Your task to perform on an android device: Do I have any events tomorrow? Image 0: 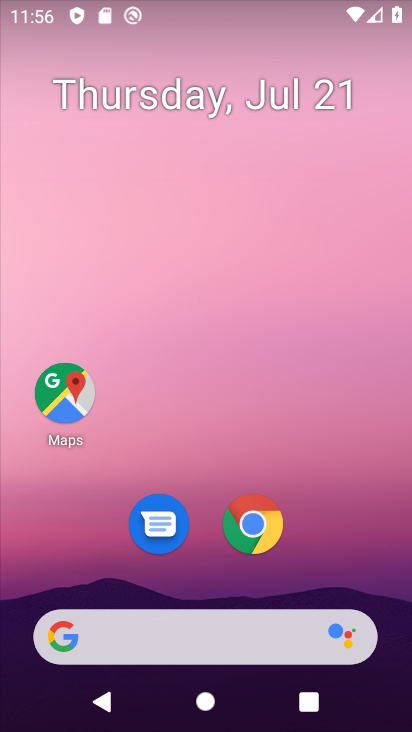
Step 0: drag from (316, 523) to (338, 39)
Your task to perform on an android device: Do I have any events tomorrow? Image 1: 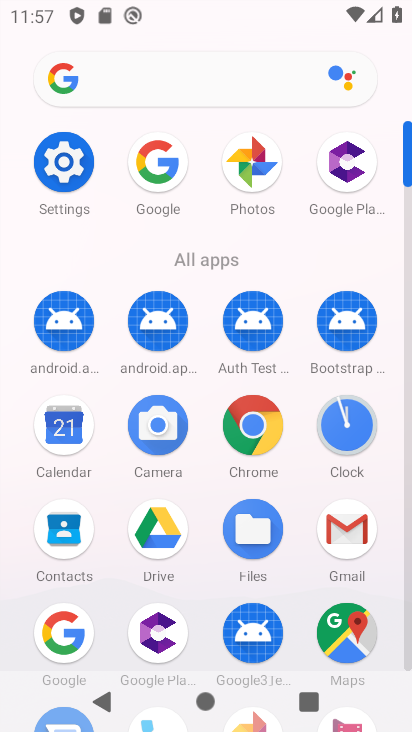
Step 1: click (62, 421)
Your task to perform on an android device: Do I have any events tomorrow? Image 2: 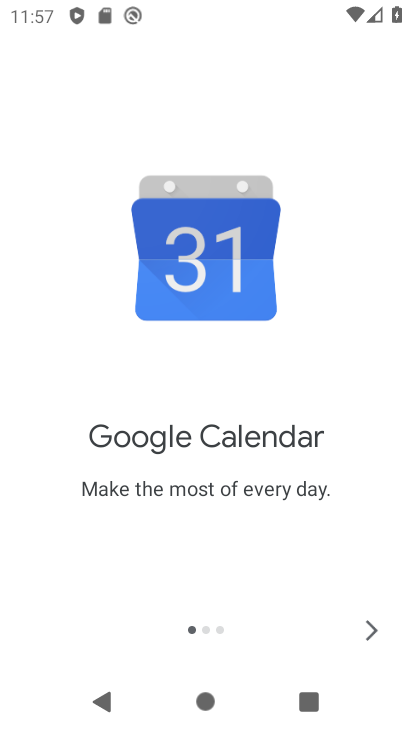
Step 2: click (62, 421)
Your task to perform on an android device: Do I have any events tomorrow? Image 3: 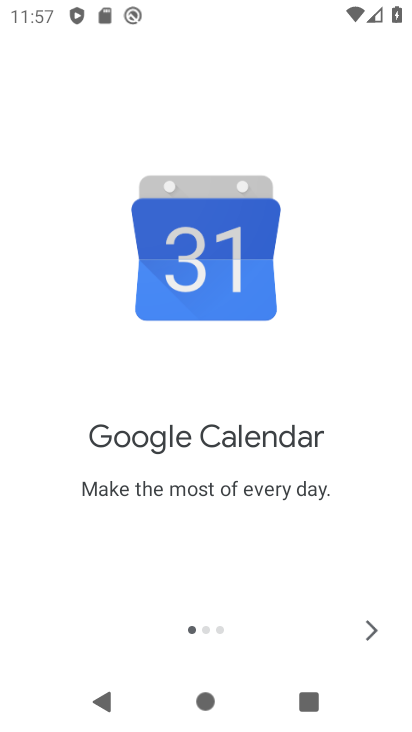
Step 3: click (372, 628)
Your task to perform on an android device: Do I have any events tomorrow? Image 4: 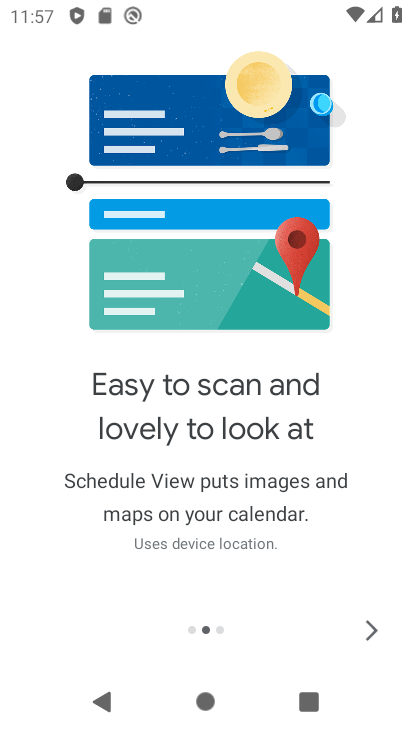
Step 4: click (372, 627)
Your task to perform on an android device: Do I have any events tomorrow? Image 5: 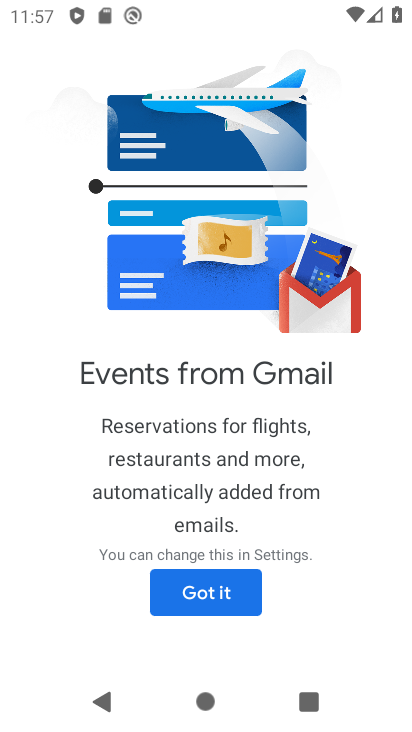
Step 5: click (246, 594)
Your task to perform on an android device: Do I have any events tomorrow? Image 6: 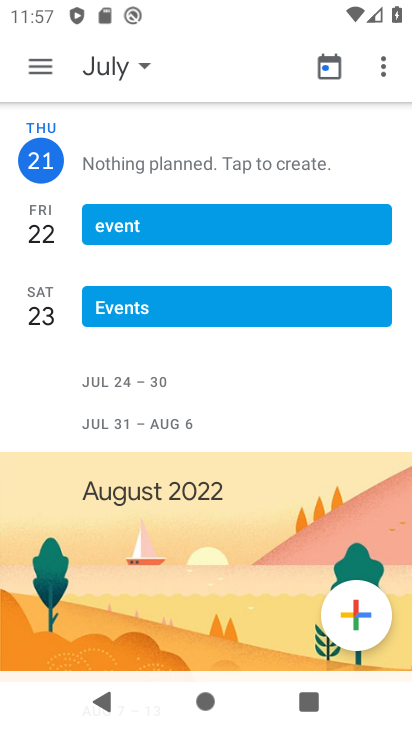
Step 6: click (51, 162)
Your task to perform on an android device: Do I have any events tomorrow? Image 7: 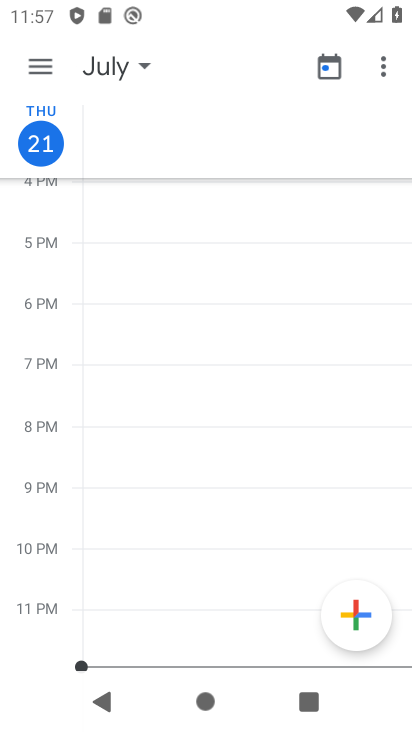
Step 7: task complete